Your task to perform on an android device: Open battery settings Image 0: 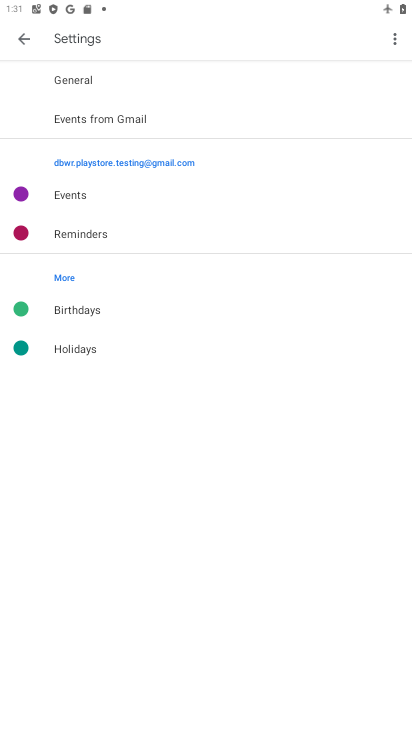
Step 0: press home button
Your task to perform on an android device: Open battery settings Image 1: 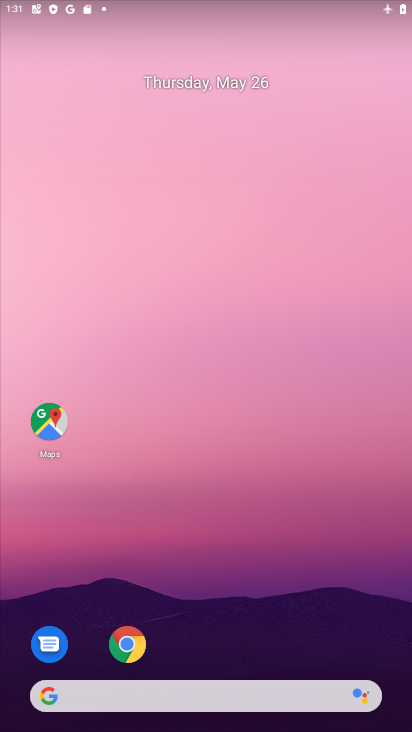
Step 1: drag from (200, 624) to (261, 216)
Your task to perform on an android device: Open battery settings Image 2: 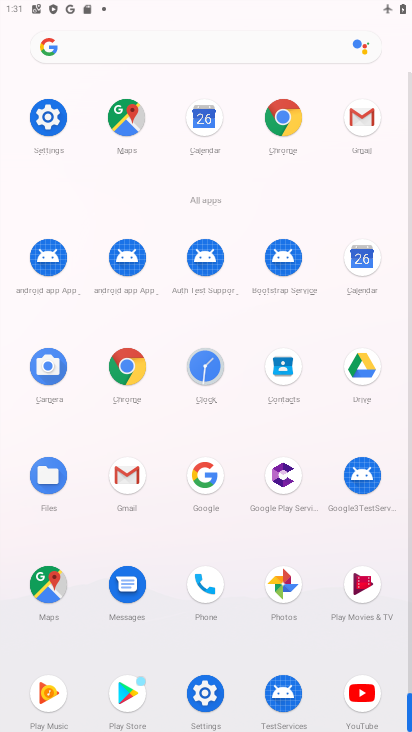
Step 2: click (46, 105)
Your task to perform on an android device: Open battery settings Image 3: 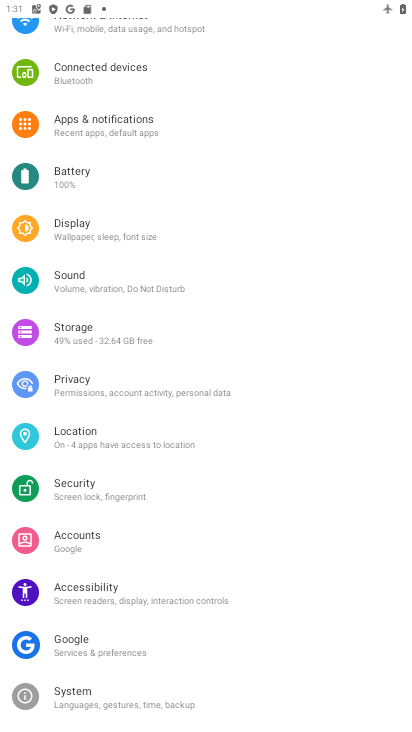
Step 3: click (63, 176)
Your task to perform on an android device: Open battery settings Image 4: 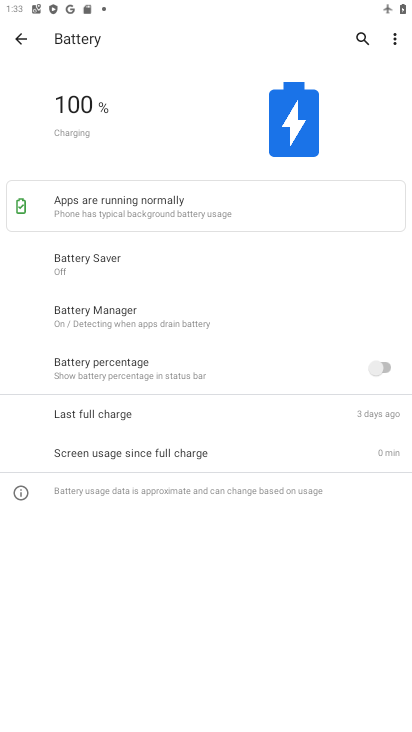
Step 4: task complete